Your task to perform on an android device: Is it going to rain today? Image 0: 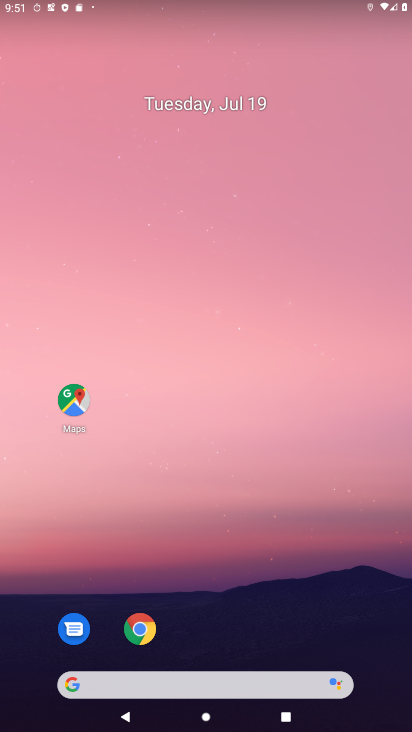
Step 0: click (203, 685)
Your task to perform on an android device: Is it going to rain today? Image 1: 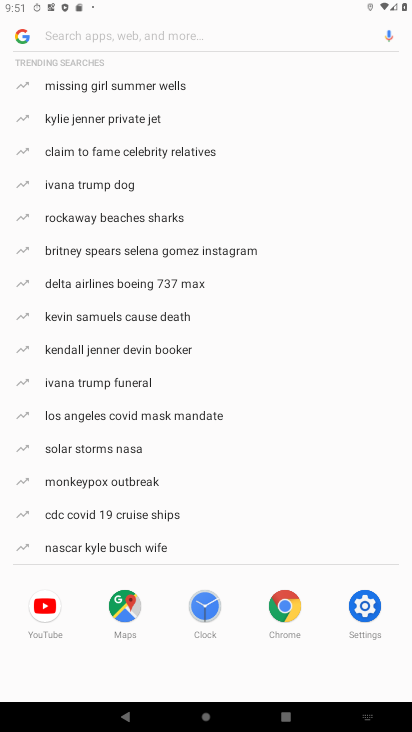
Step 1: type "weather"
Your task to perform on an android device: Is it going to rain today? Image 2: 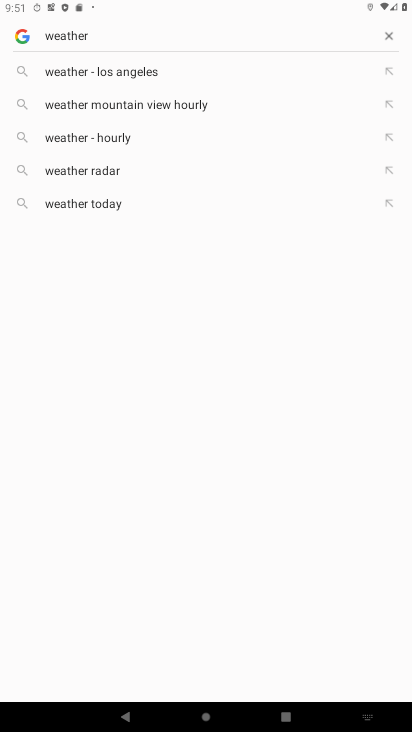
Step 2: click (96, 205)
Your task to perform on an android device: Is it going to rain today? Image 3: 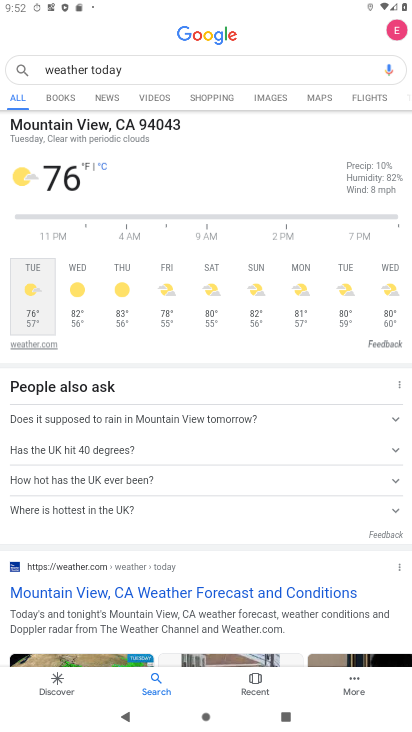
Step 3: task complete